Your task to perform on an android device: check storage Image 0: 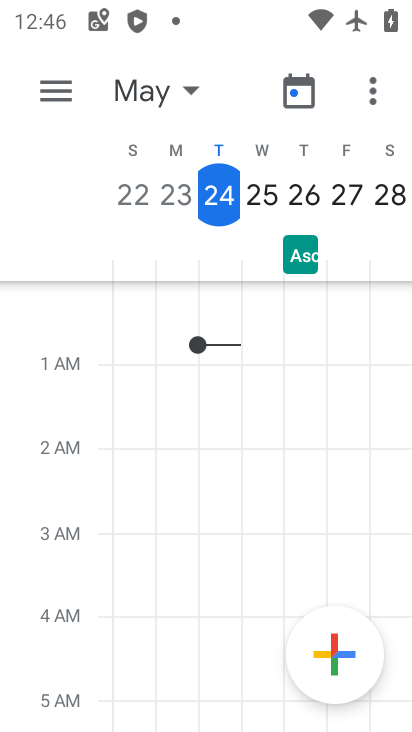
Step 0: press home button
Your task to perform on an android device: check storage Image 1: 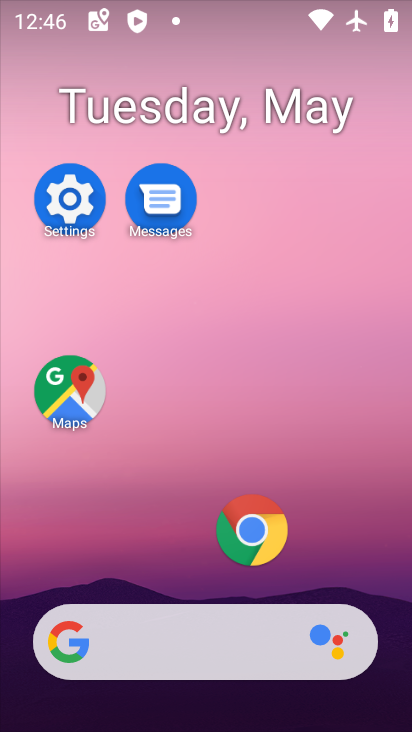
Step 1: drag from (162, 540) to (283, 163)
Your task to perform on an android device: check storage Image 2: 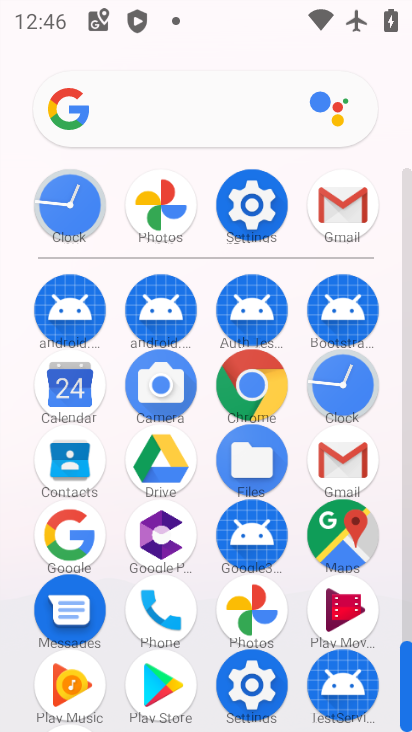
Step 2: click (253, 201)
Your task to perform on an android device: check storage Image 3: 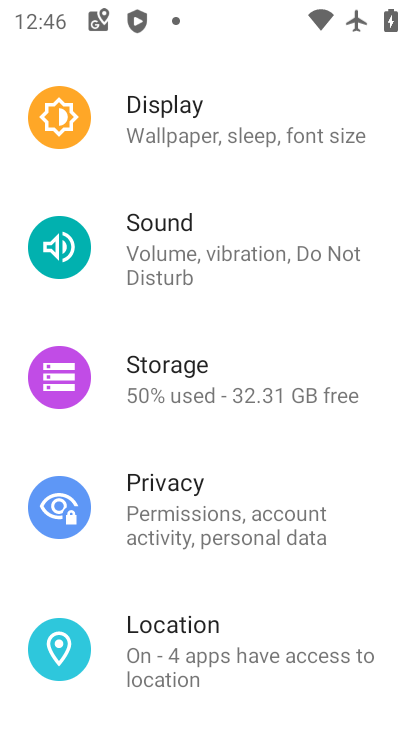
Step 3: click (208, 389)
Your task to perform on an android device: check storage Image 4: 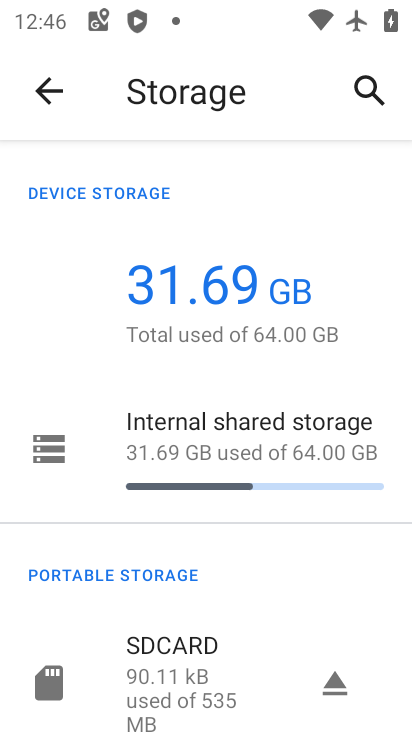
Step 4: click (231, 438)
Your task to perform on an android device: check storage Image 5: 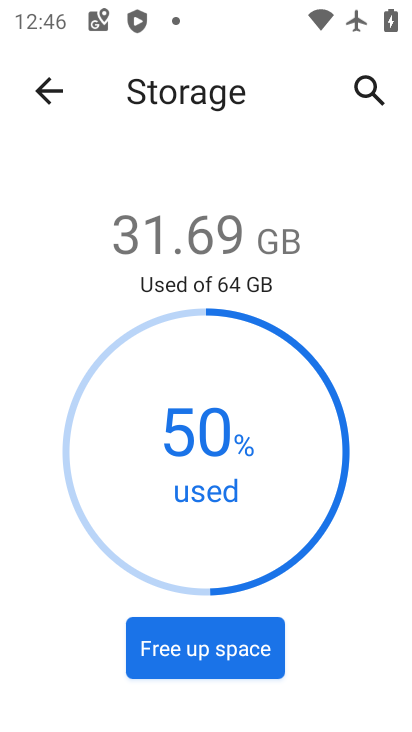
Step 5: click (211, 459)
Your task to perform on an android device: check storage Image 6: 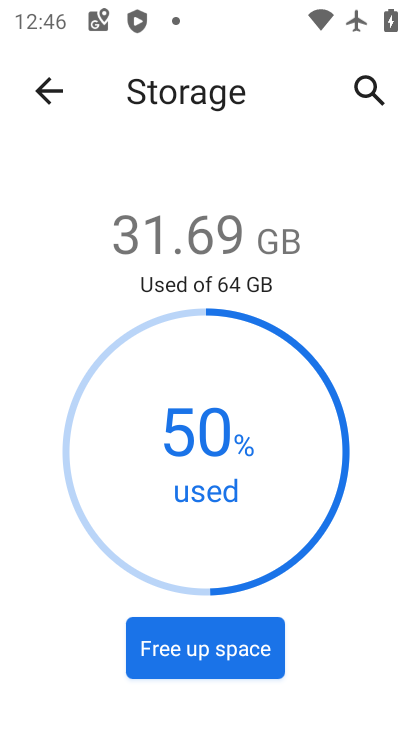
Step 6: click (321, 297)
Your task to perform on an android device: check storage Image 7: 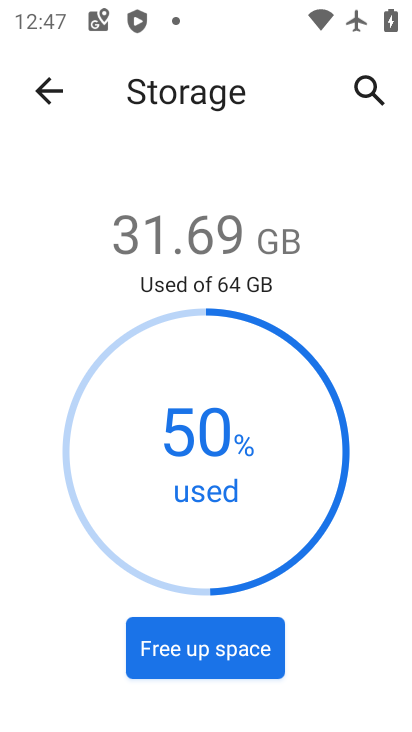
Step 7: task complete